Your task to perform on an android device: check battery use Image 0: 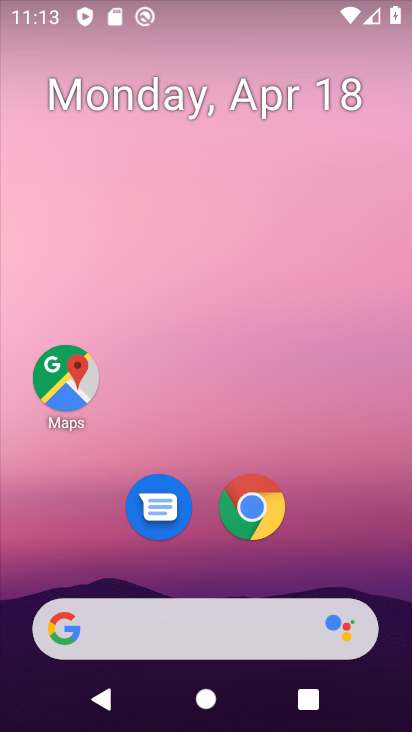
Step 0: click (296, 226)
Your task to perform on an android device: check battery use Image 1: 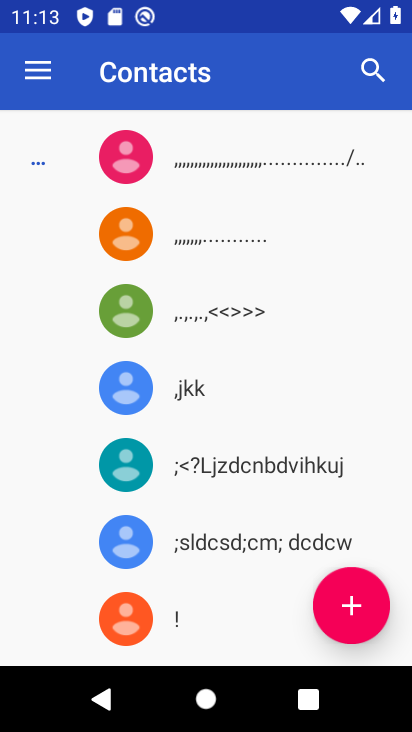
Step 1: press home button
Your task to perform on an android device: check battery use Image 2: 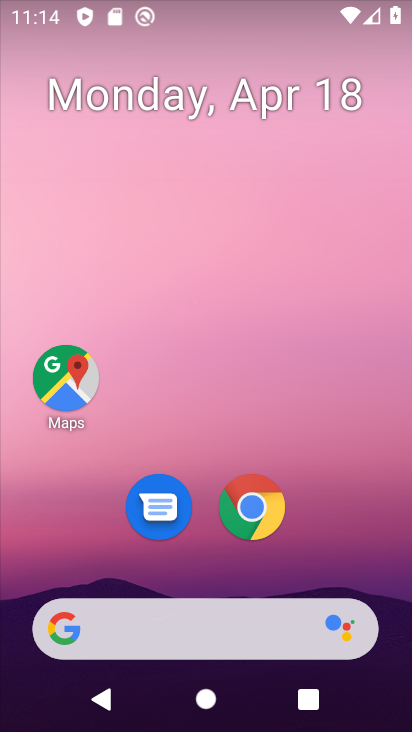
Step 2: drag from (328, 462) to (323, 247)
Your task to perform on an android device: check battery use Image 3: 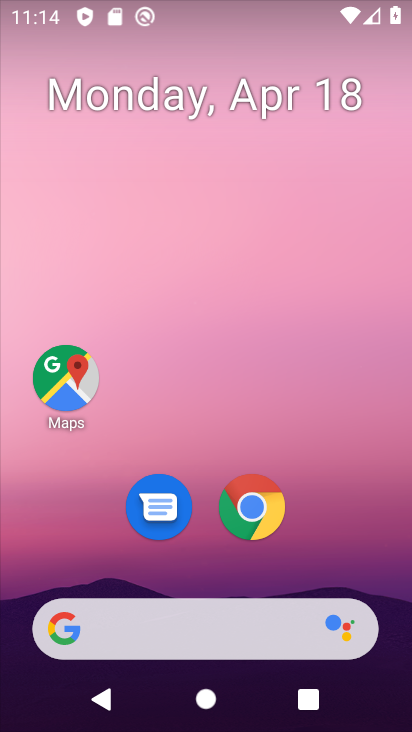
Step 3: drag from (342, 551) to (307, 302)
Your task to perform on an android device: check battery use Image 4: 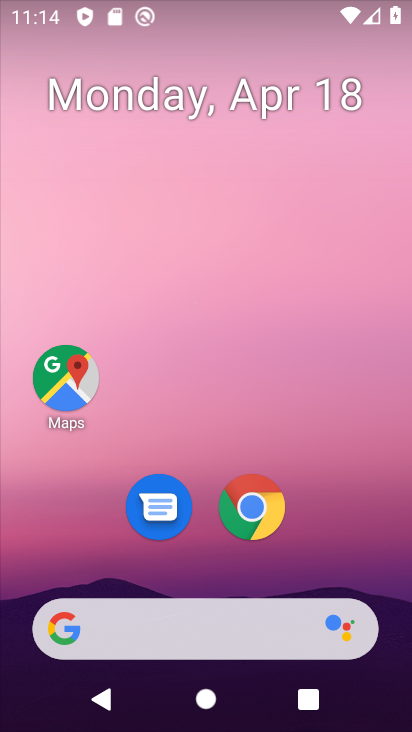
Step 4: drag from (330, 526) to (335, 213)
Your task to perform on an android device: check battery use Image 5: 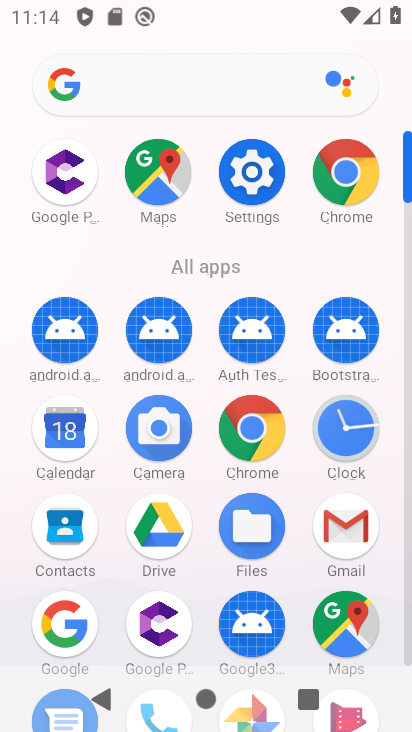
Step 5: click (248, 186)
Your task to perform on an android device: check battery use Image 6: 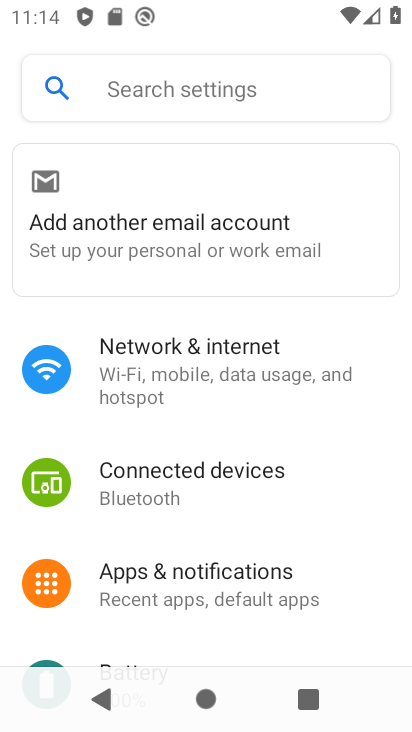
Step 6: drag from (228, 563) to (221, 289)
Your task to perform on an android device: check battery use Image 7: 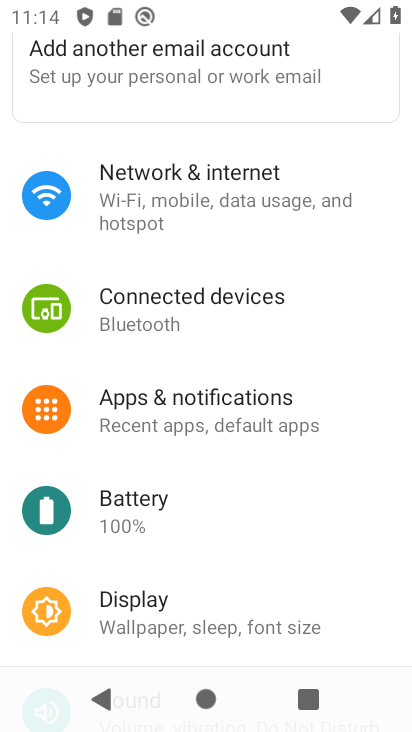
Step 7: click (175, 501)
Your task to perform on an android device: check battery use Image 8: 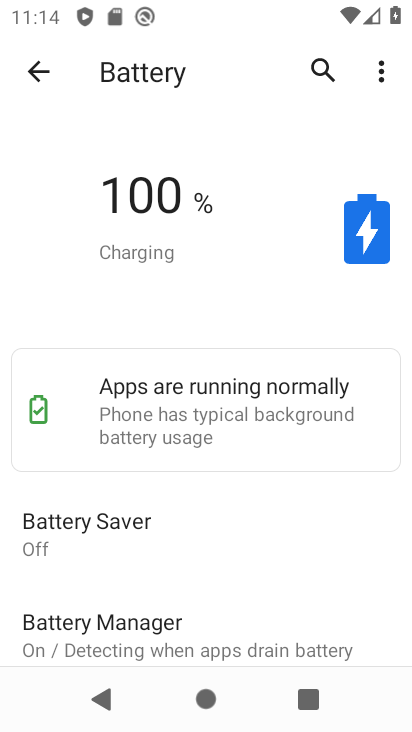
Step 8: task complete